Your task to perform on an android device: Open the Play Movies app and select the watchlist tab. Image 0: 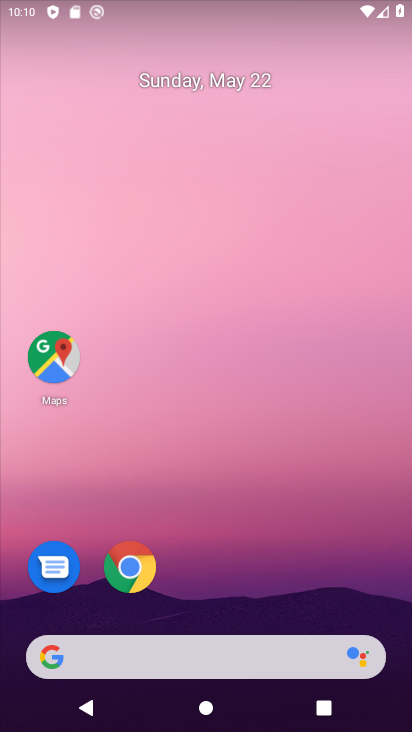
Step 0: drag from (400, 628) to (320, 96)
Your task to perform on an android device: Open the Play Movies app and select the watchlist tab. Image 1: 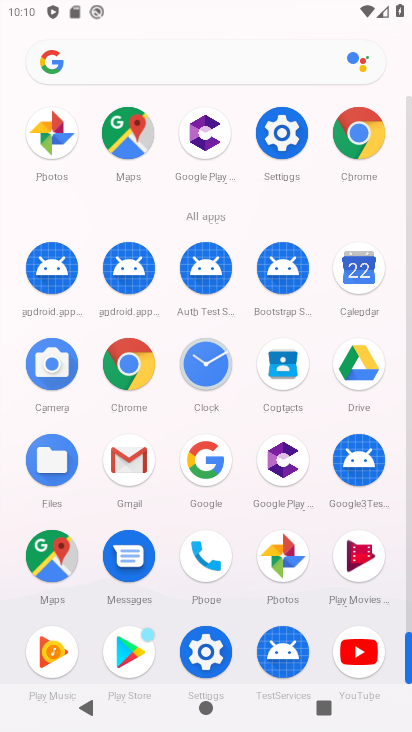
Step 1: click (363, 555)
Your task to perform on an android device: Open the Play Movies app and select the watchlist tab. Image 2: 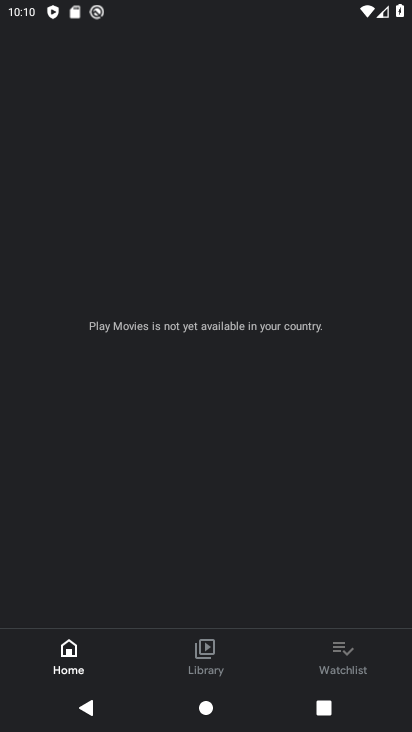
Step 2: click (344, 658)
Your task to perform on an android device: Open the Play Movies app and select the watchlist tab. Image 3: 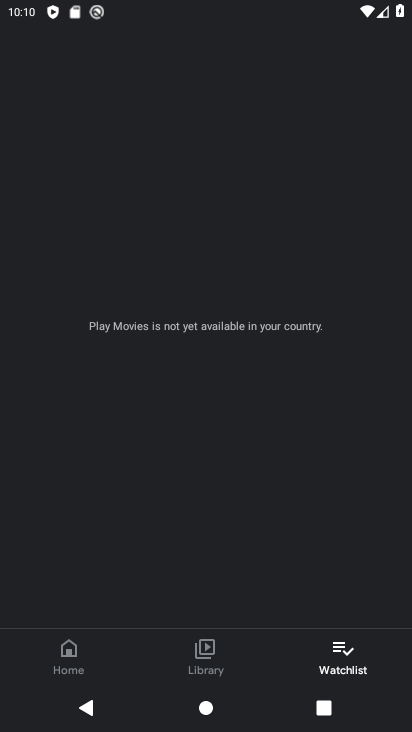
Step 3: task complete